Your task to perform on an android device: Toggle the flashlight Image 0: 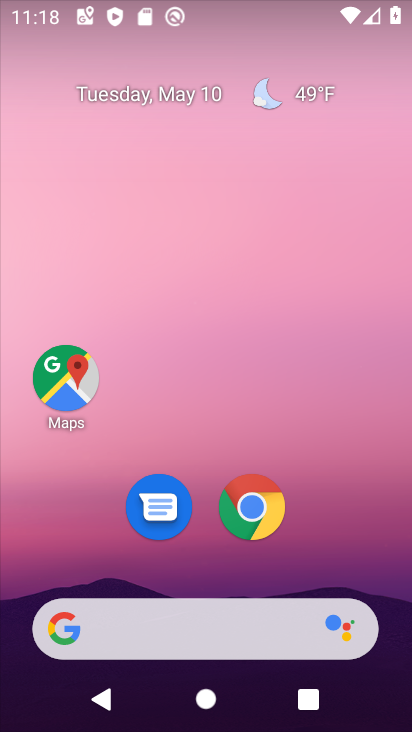
Step 0: drag from (194, 558) to (212, 117)
Your task to perform on an android device: Toggle the flashlight Image 1: 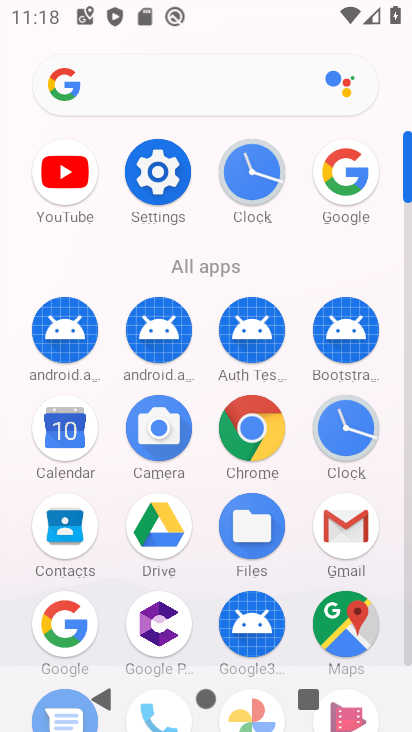
Step 1: click (157, 168)
Your task to perform on an android device: Toggle the flashlight Image 2: 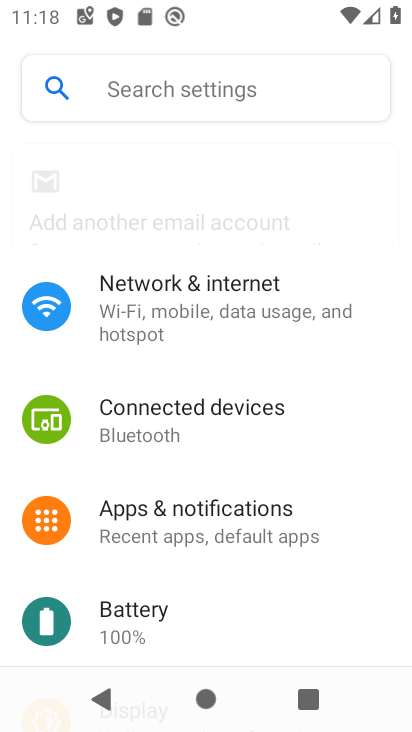
Step 2: click (216, 85)
Your task to perform on an android device: Toggle the flashlight Image 3: 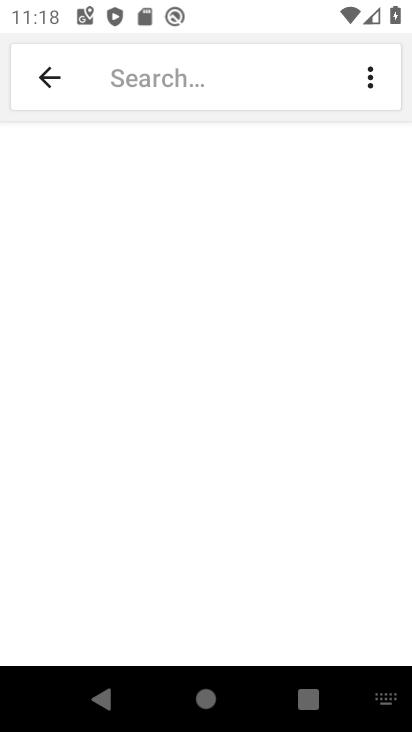
Step 3: type "flash"
Your task to perform on an android device: Toggle the flashlight Image 4: 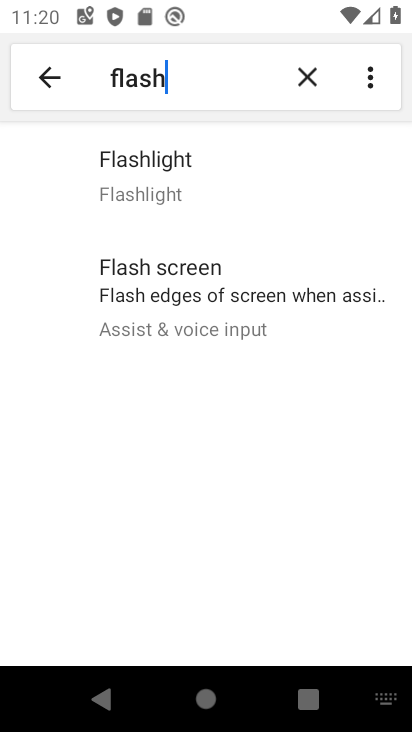
Step 4: task complete